Your task to perform on an android device: change the upload size in google photos Image 0: 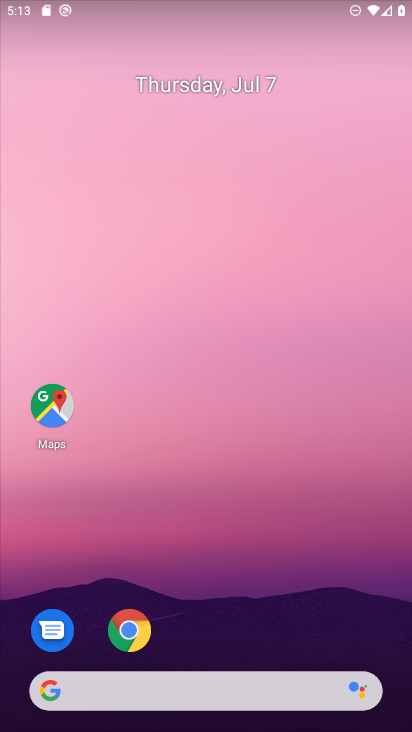
Step 0: press home button
Your task to perform on an android device: change the upload size in google photos Image 1: 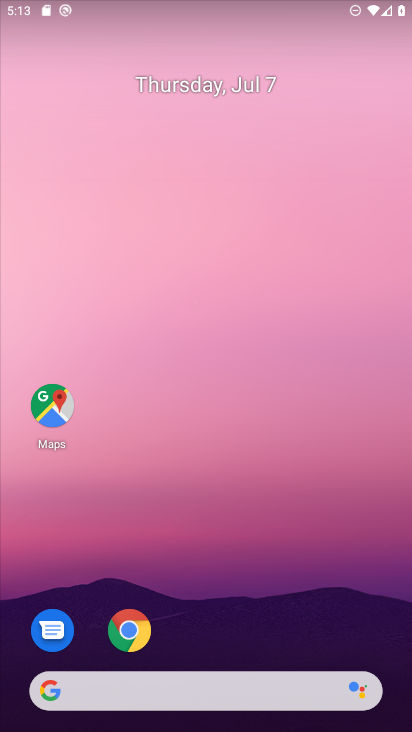
Step 1: click (243, 181)
Your task to perform on an android device: change the upload size in google photos Image 2: 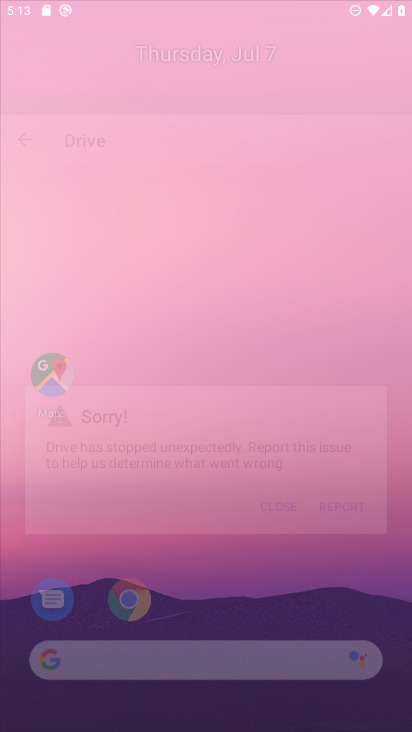
Step 2: drag from (209, 642) to (222, 335)
Your task to perform on an android device: change the upload size in google photos Image 3: 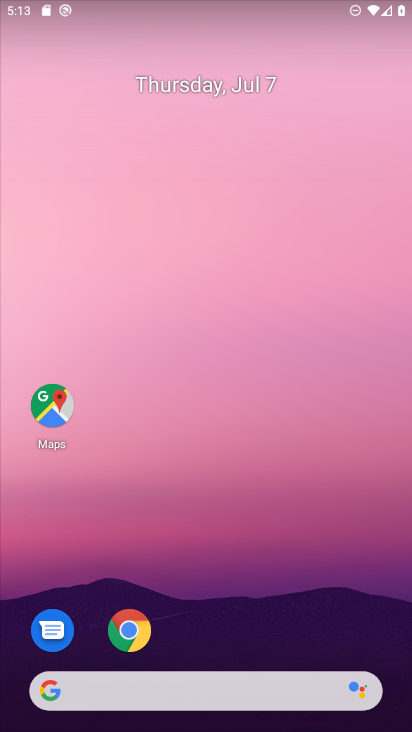
Step 3: drag from (242, 626) to (234, 155)
Your task to perform on an android device: change the upload size in google photos Image 4: 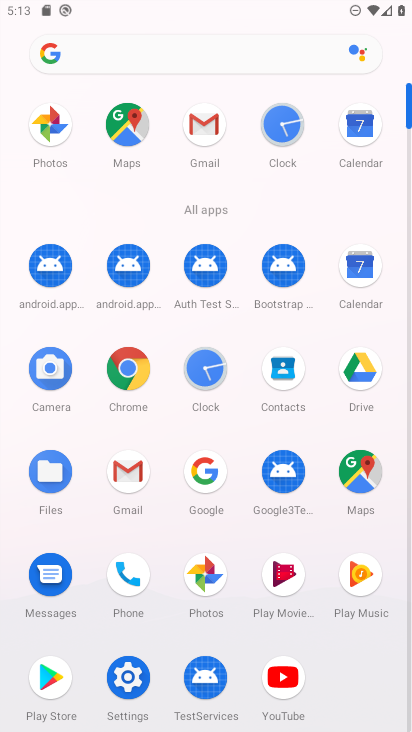
Step 4: click (203, 579)
Your task to perform on an android device: change the upload size in google photos Image 5: 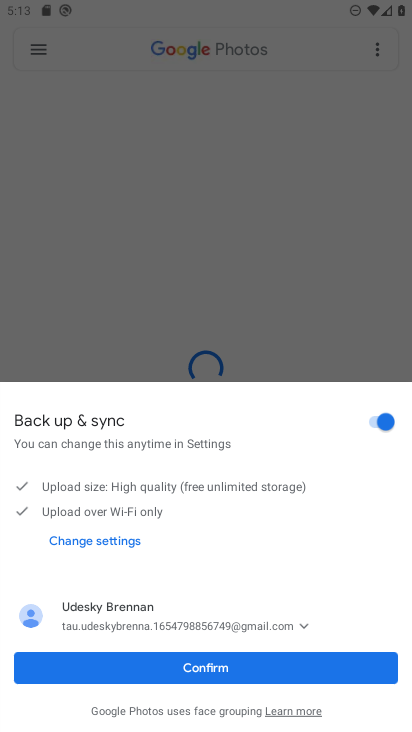
Step 5: click (241, 668)
Your task to perform on an android device: change the upload size in google photos Image 6: 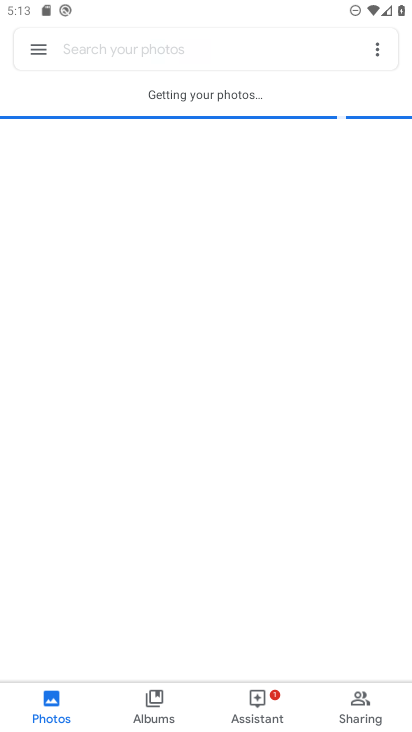
Step 6: click (379, 45)
Your task to perform on an android device: change the upload size in google photos Image 7: 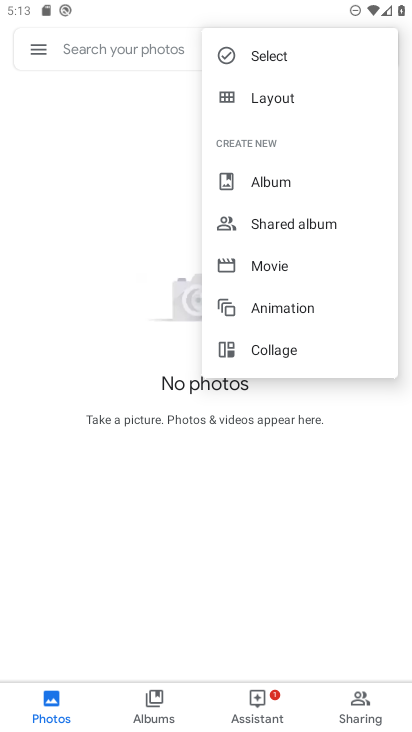
Step 7: click (340, 466)
Your task to perform on an android device: change the upload size in google photos Image 8: 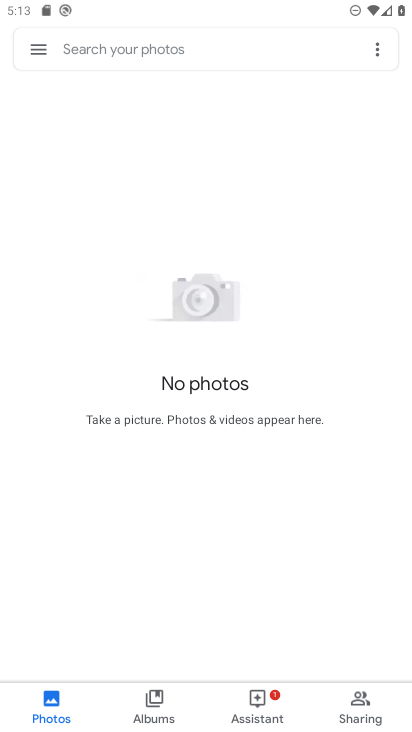
Step 8: click (34, 47)
Your task to perform on an android device: change the upload size in google photos Image 9: 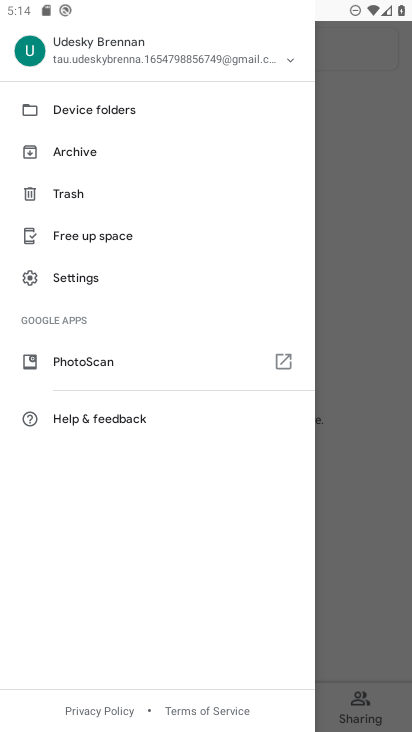
Step 9: click (81, 279)
Your task to perform on an android device: change the upload size in google photos Image 10: 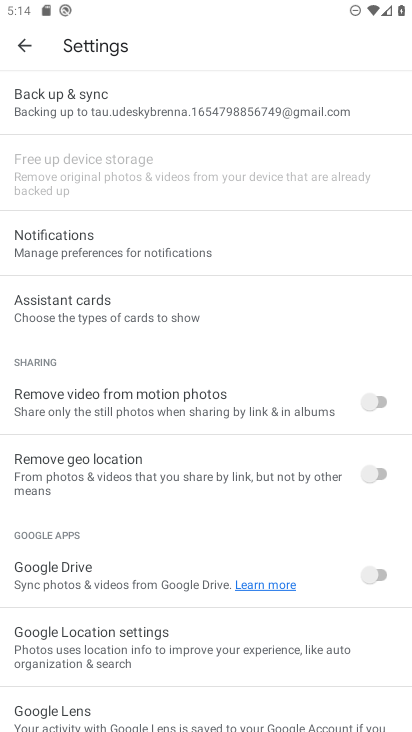
Step 10: click (72, 104)
Your task to perform on an android device: change the upload size in google photos Image 11: 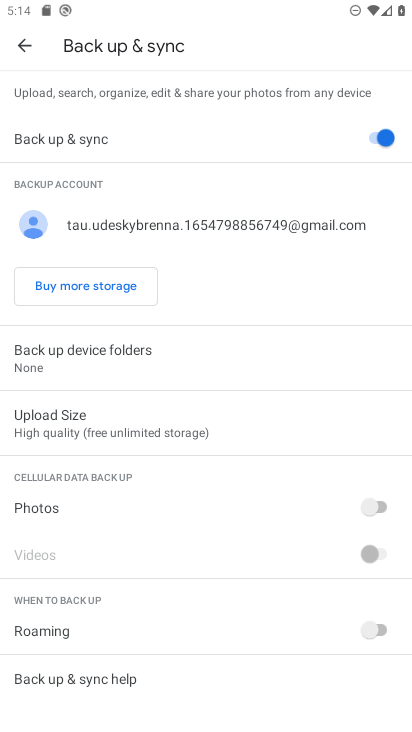
Step 11: click (92, 430)
Your task to perform on an android device: change the upload size in google photos Image 12: 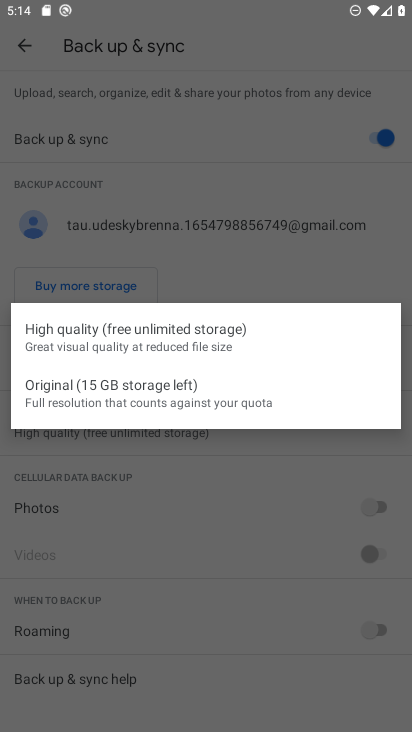
Step 12: click (106, 392)
Your task to perform on an android device: change the upload size in google photos Image 13: 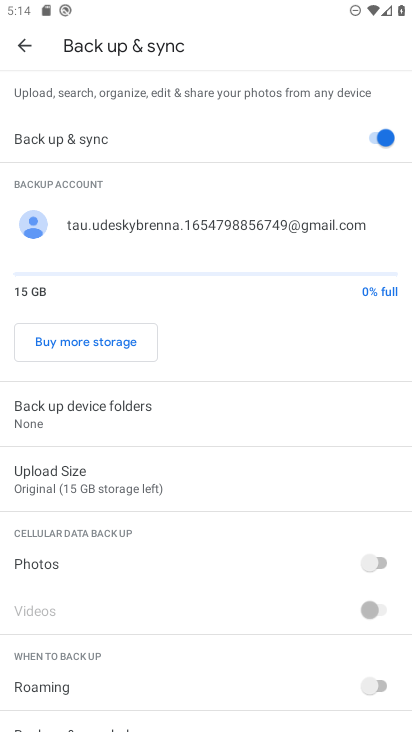
Step 13: task complete